Your task to perform on an android device: Open Google Chrome and open the bookmarks view Image 0: 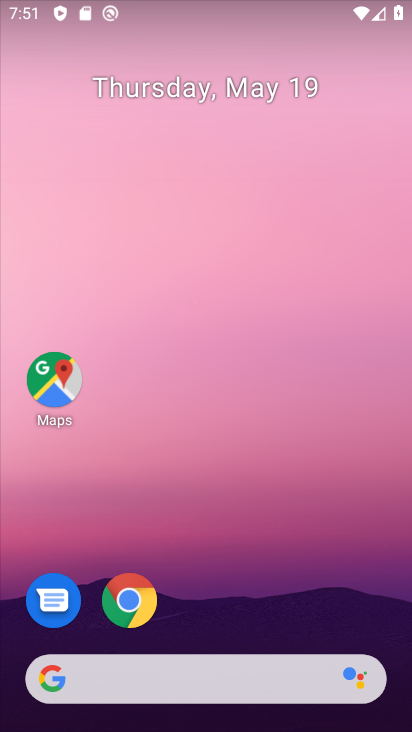
Step 0: drag from (345, 617) to (362, 300)
Your task to perform on an android device: Open Google Chrome and open the bookmarks view Image 1: 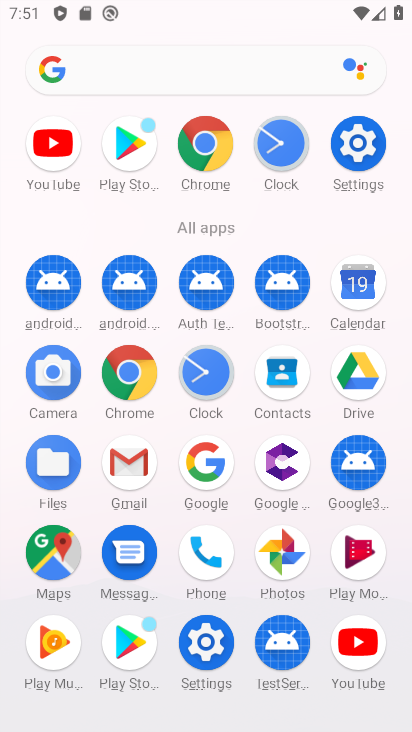
Step 1: click (135, 378)
Your task to perform on an android device: Open Google Chrome and open the bookmarks view Image 2: 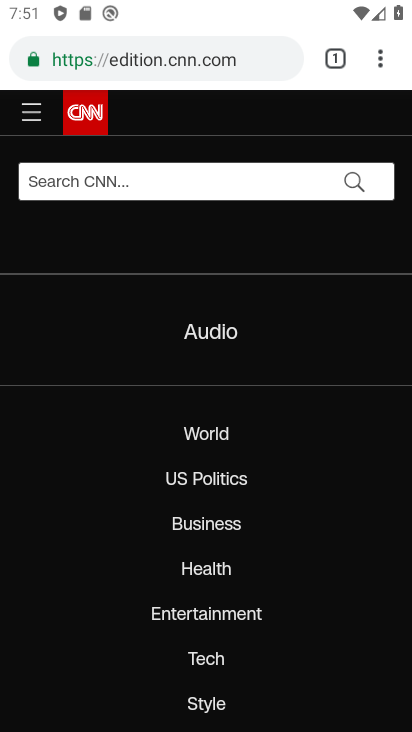
Step 2: click (377, 62)
Your task to perform on an android device: Open Google Chrome and open the bookmarks view Image 3: 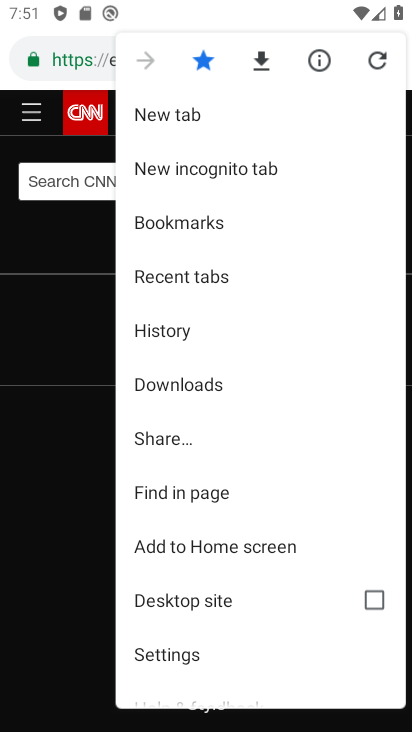
Step 3: drag from (324, 622) to (324, 518)
Your task to perform on an android device: Open Google Chrome and open the bookmarks view Image 4: 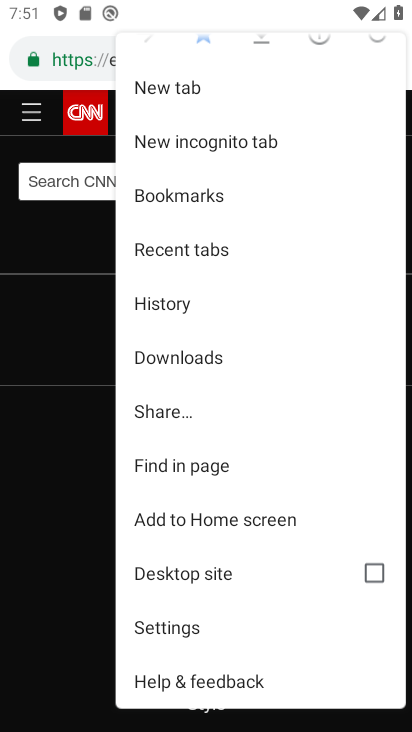
Step 4: drag from (336, 405) to (324, 486)
Your task to perform on an android device: Open Google Chrome and open the bookmarks view Image 5: 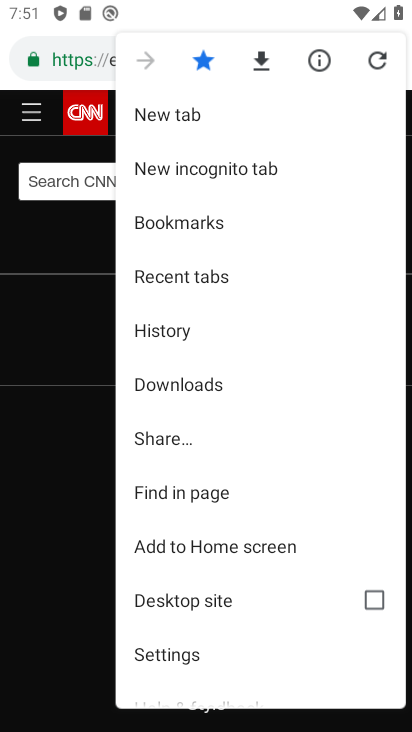
Step 5: drag from (333, 345) to (321, 457)
Your task to perform on an android device: Open Google Chrome and open the bookmarks view Image 6: 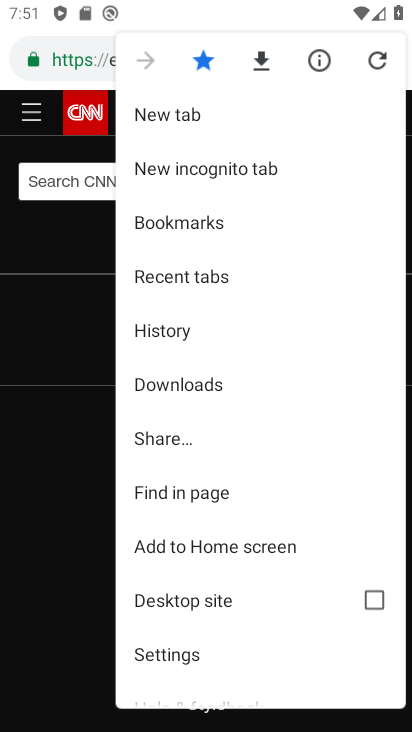
Step 6: click (259, 235)
Your task to perform on an android device: Open Google Chrome and open the bookmarks view Image 7: 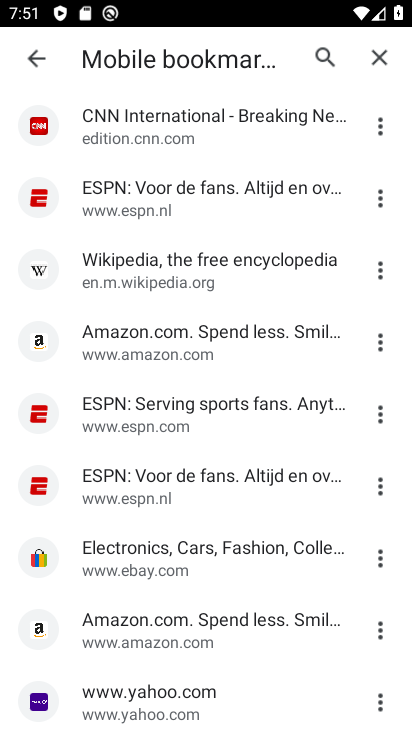
Step 7: task complete